Your task to perform on an android device: toggle translation in the chrome app Image 0: 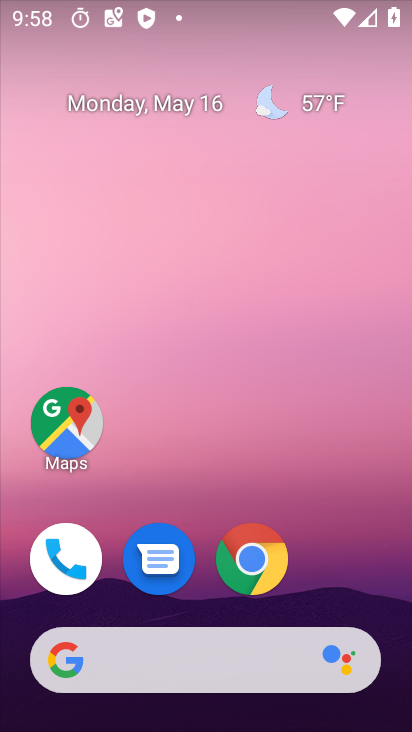
Step 0: click (253, 560)
Your task to perform on an android device: toggle translation in the chrome app Image 1: 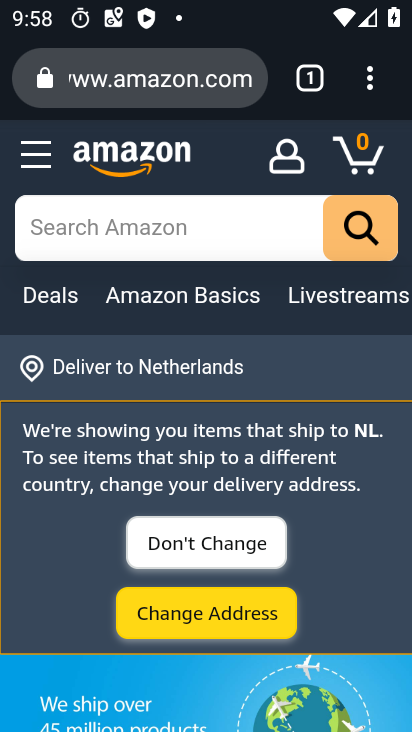
Step 1: drag from (382, 82) to (100, 619)
Your task to perform on an android device: toggle translation in the chrome app Image 2: 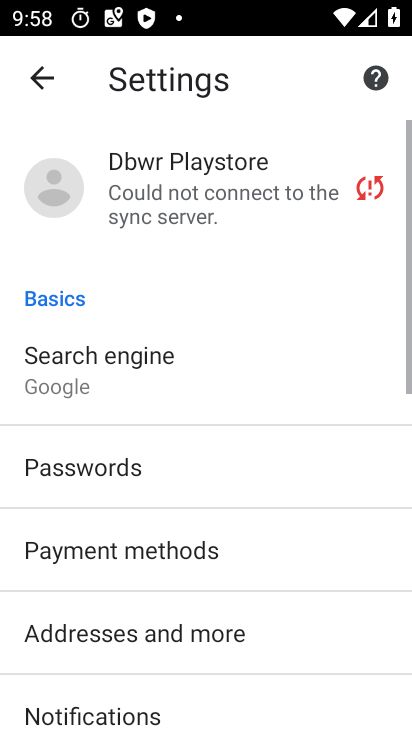
Step 2: drag from (245, 635) to (252, 56)
Your task to perform on an android device: toggle translation in the chrome app Image 3: 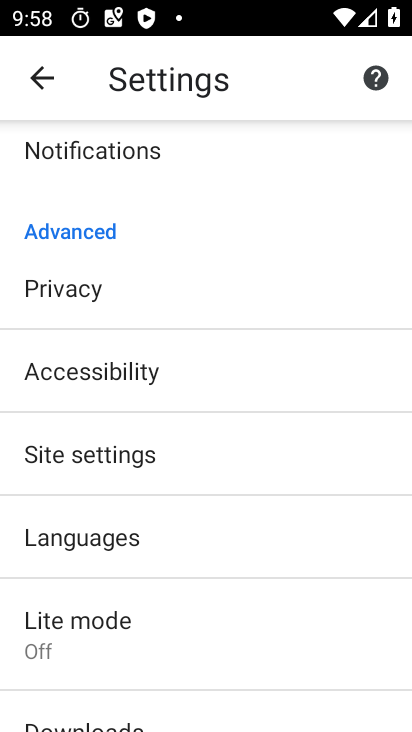
Step 3: click (107, 532)
Your task to perform on an android device: toggle translation in the chrome app Image 4: 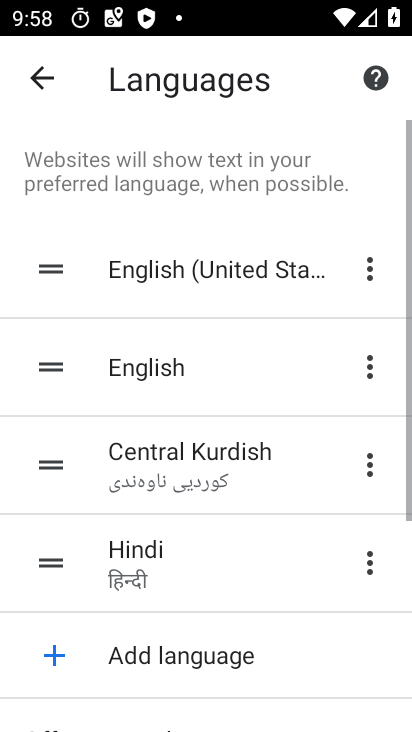
Step 4: drag from (248, 584) to (264, 67)
Your task to perform on an android device: toggle translation in the chrome app Image 5: 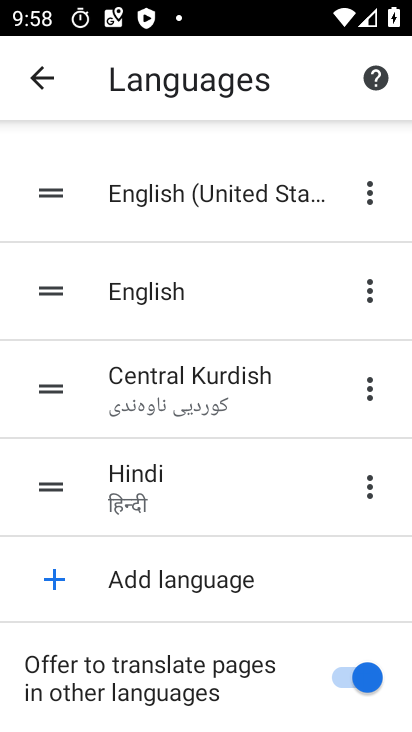
Step 5: click (364, 667)
Your task to perform on an android device: toggle translation in the chrome app Image 6: 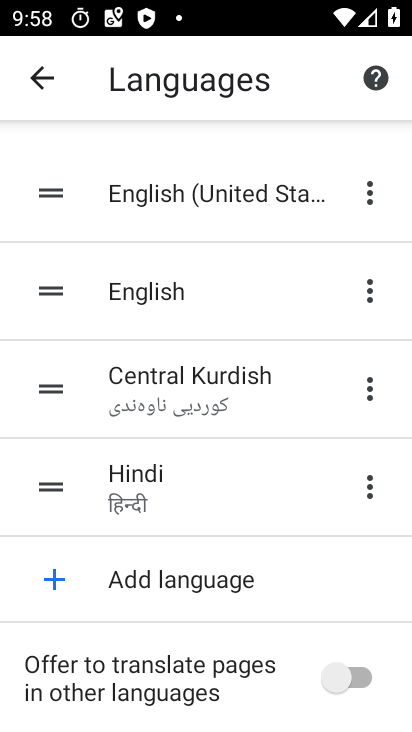
Step 6: task complete